Your task to perform on an android device: turn off javascript in the chrome app Image 0: 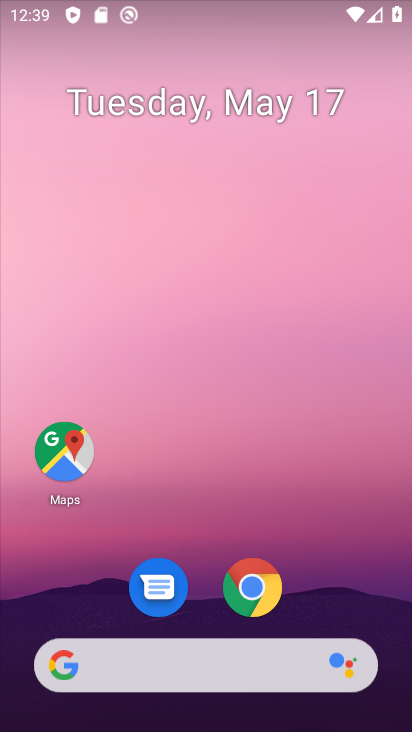
Step 0: click (233, 587)
Your task to perform on an android device: turn off javascript in the chrome app Image 1: 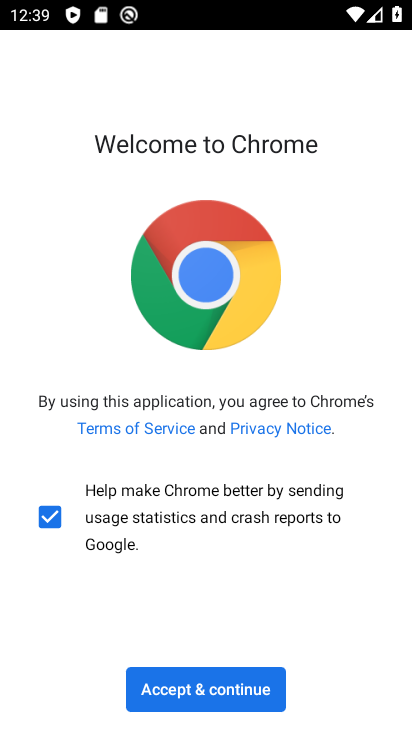
Step 1: click (228, 676)
Your task to perform on an android device: turn off javascript in the chrome app Image 2: 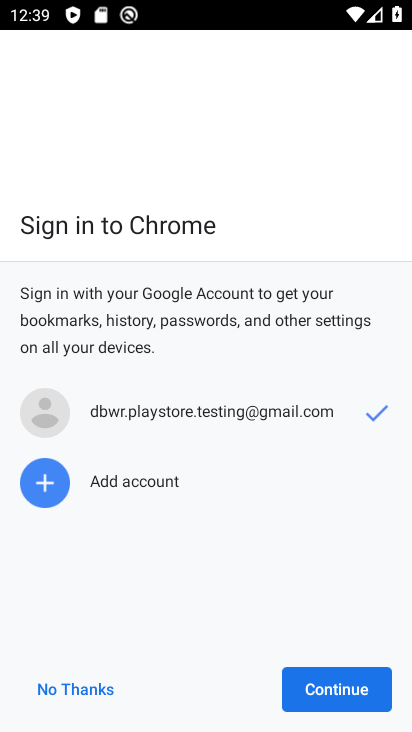
Step 2: click (321, 687)
Your task to perform on an android device: turn off javascript in the chrome app Image 3: 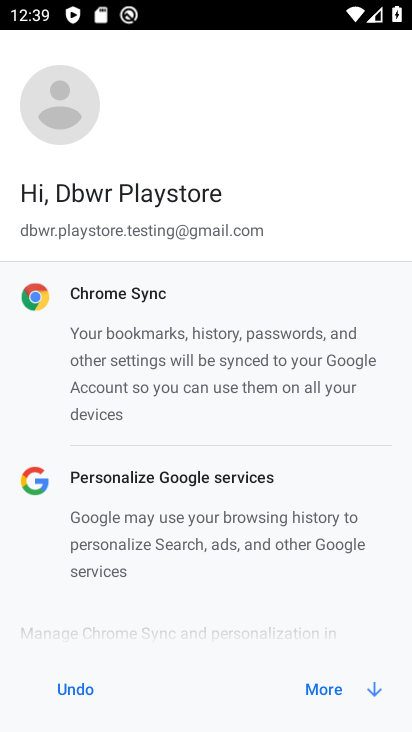
Step 3: click (321, 687)
Your task to perform on an android device: turn off javascript in the chrome app Image 4: 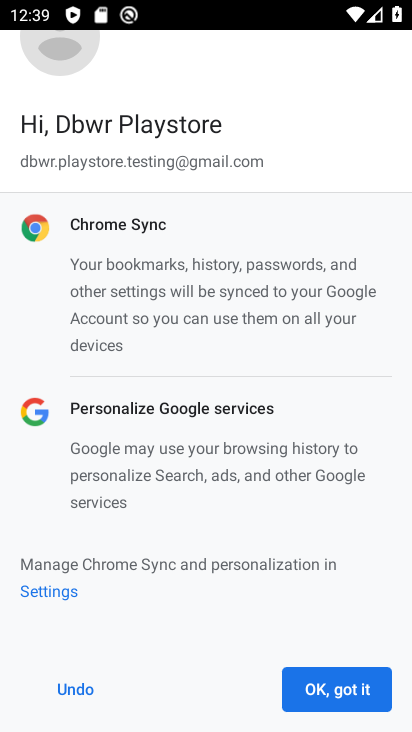
Step 4: click (319, 687)
Your task to perform on an android device: turn off javascript in the chrome app Image 5: 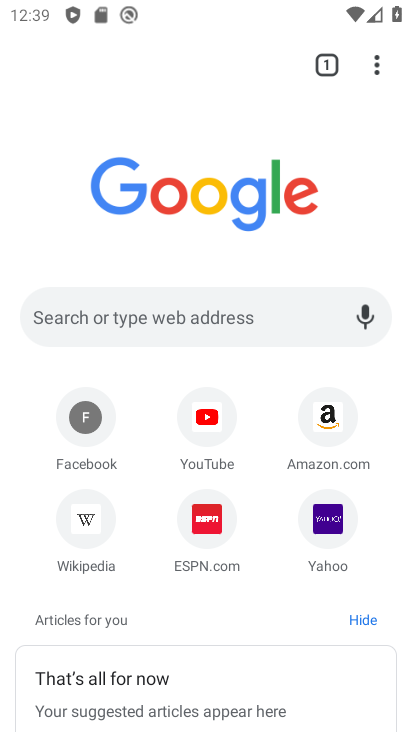
Step 5: drag from (388, 60) to (207, 529)
Your task to perform on an android device: turn off javascript in the chrome app Image 6: 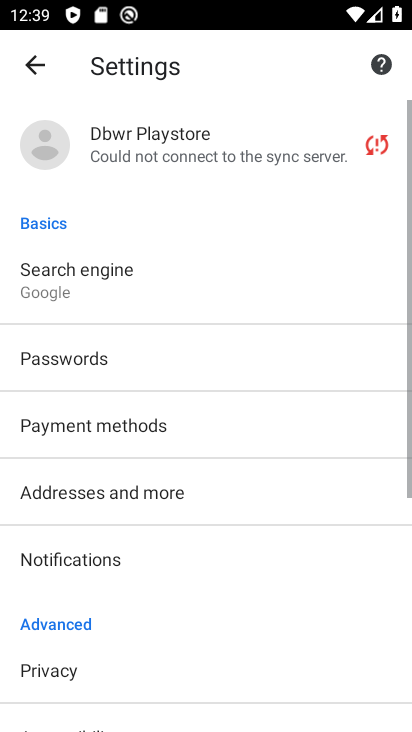
Step 6: drag from (92, 649) to (263, 233)
Your task to perform on an android device: turn off javascript in the chrome app Image 7: 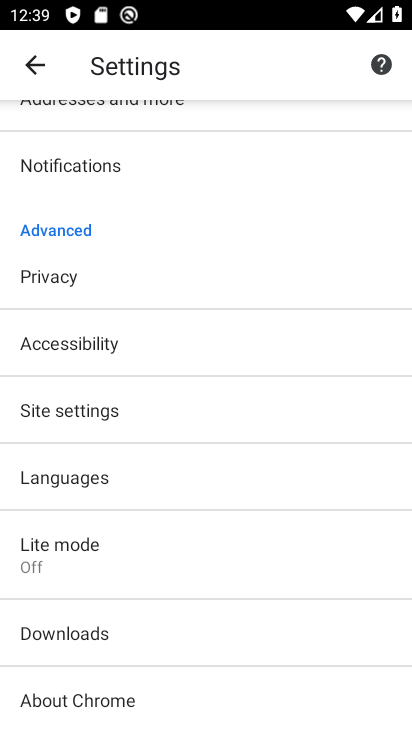
Step 7: click (131, 402)
Your task to perform on an android device: turn off javascript in the chrome app Image 8: 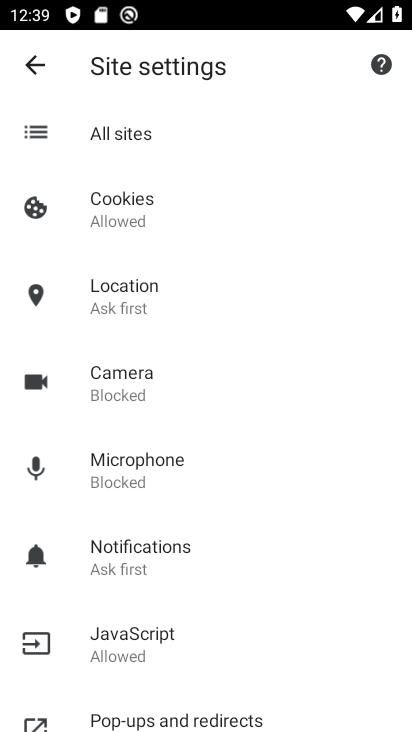
Step 8: drag from (195, 674) to (244, 491)
Your task to perform on an android device: turn off javascript in the chrome app Image 9: 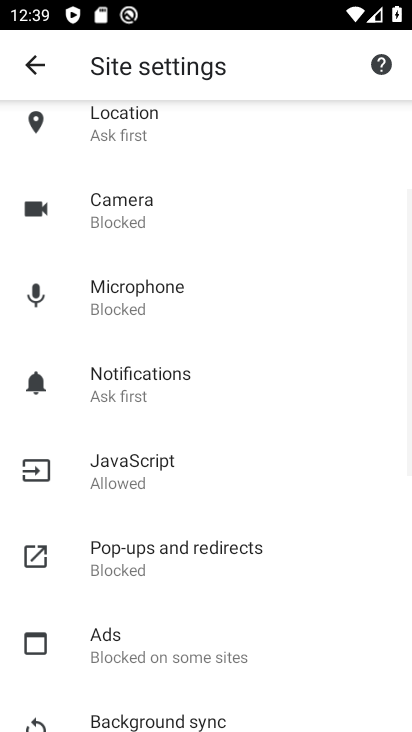
Step 9: click (210, 472)
Your task to perform on an android device: turn off javascript in the chrome app Image 10: 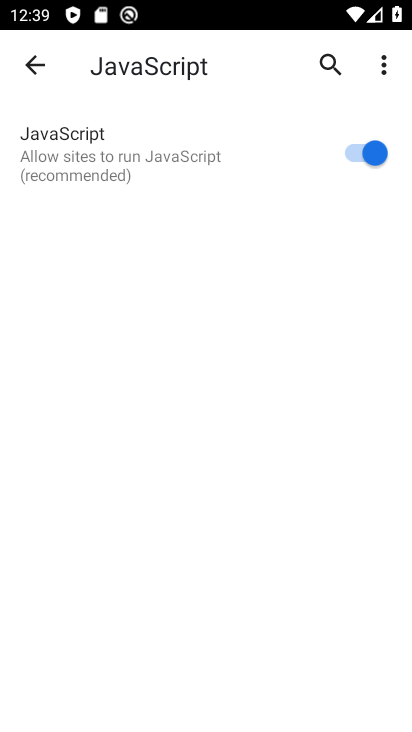
Step 10: click (349, 145)
Your task to perform on an android device: turn off javascript in the chrome app Image 11: 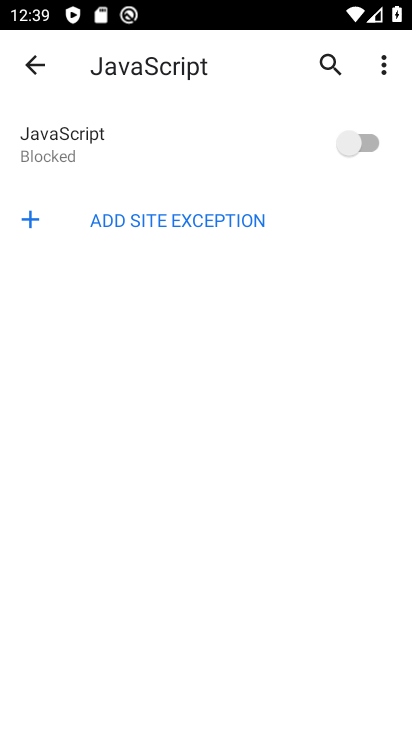
Step 11: task complete